Your task to perform on an android device: Open calendar and show me the fourth week of next month Image 0: 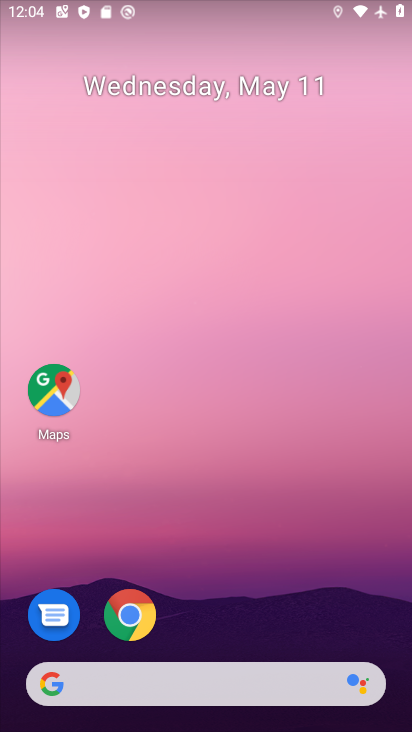
Step 0: drag from (261, 563) to (242, 5)
Your task to perform on an android device: Open calendar and show me the fourth week of next month Image 1: 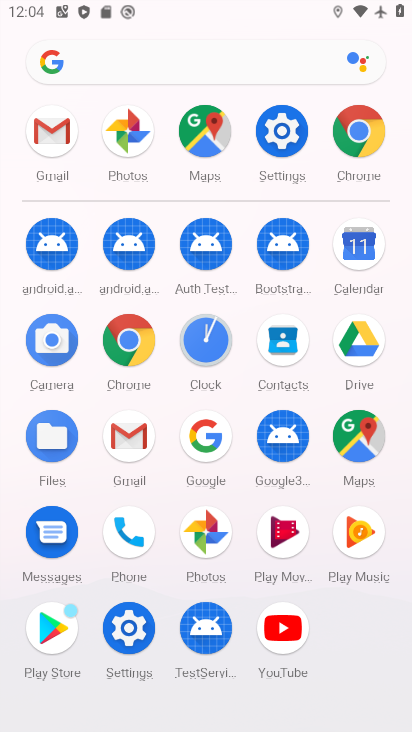
Step 1: drag from (13, 554) to (22, 291)
Your task to perform on an android device: Open calendar and show me the fourth week of next month Image 2: 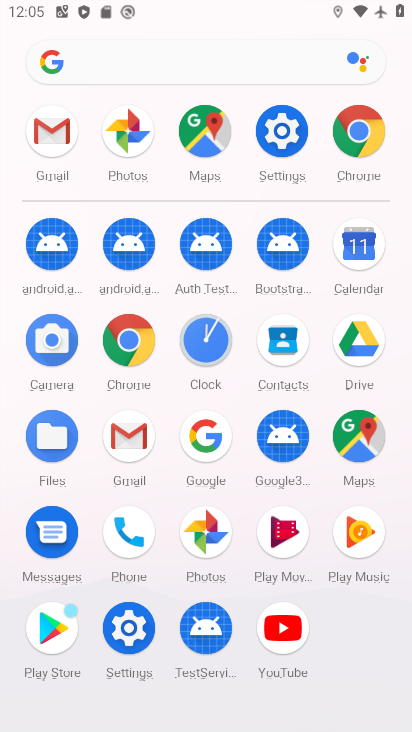
Step 2: click (358, 242)
Your task to perform on an android device: Open calendar and show me the fourth week of next month Image 3: 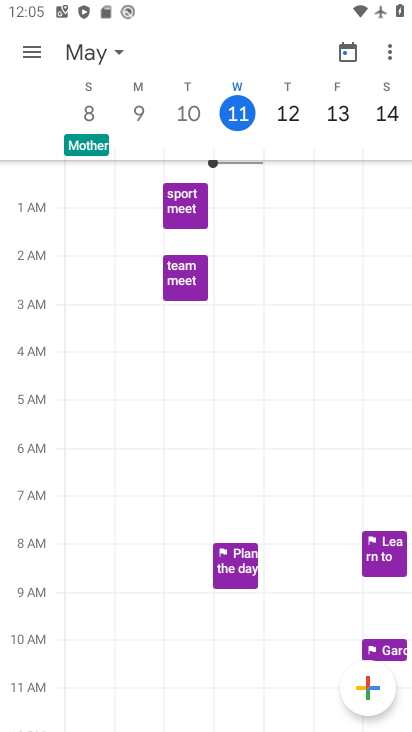
Step 3: click (32, 51)
Your task to perform on an android device: Open calendar and show me the fourth week of next month Image 4: 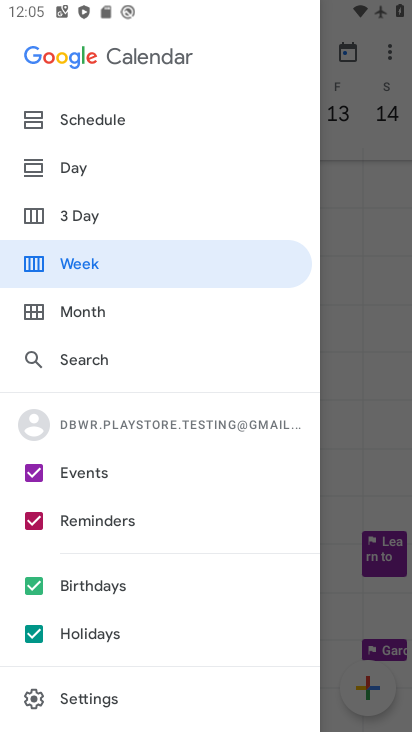
Step 4: click (345, 202)
Your task to perform on an android device: Open calendar and show me the fourth week of next month Image 5: 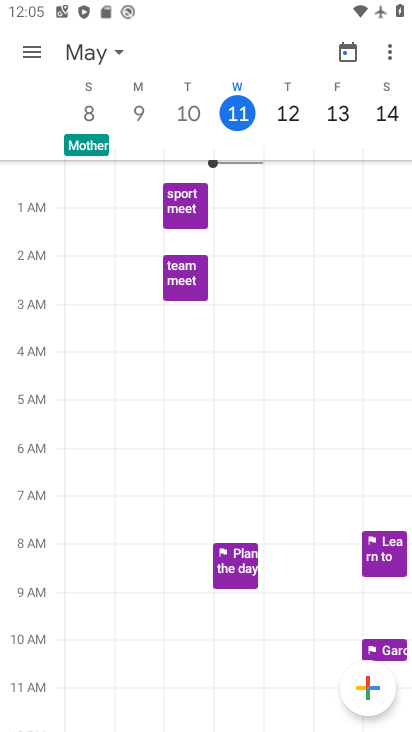
Step 5: click (111, 50)
Your task to perform on an android device: Open calendar and show me the fourth week of next month Image 6: 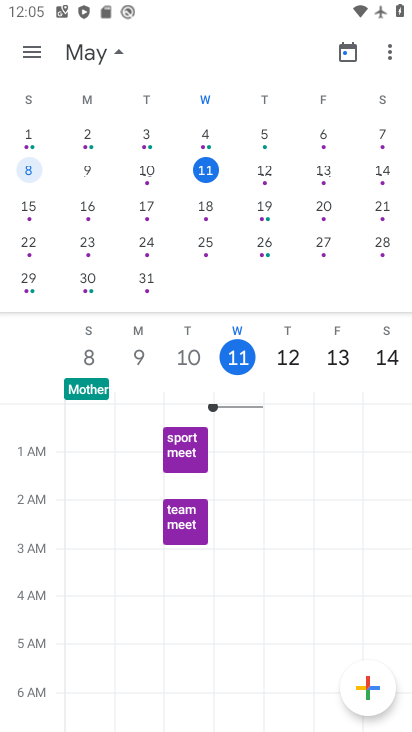
Step 6: drag from (404, 224) to (16, 238)
Your task to perform on an android device: Open calendar and show me the fourth week of next month Image 7: 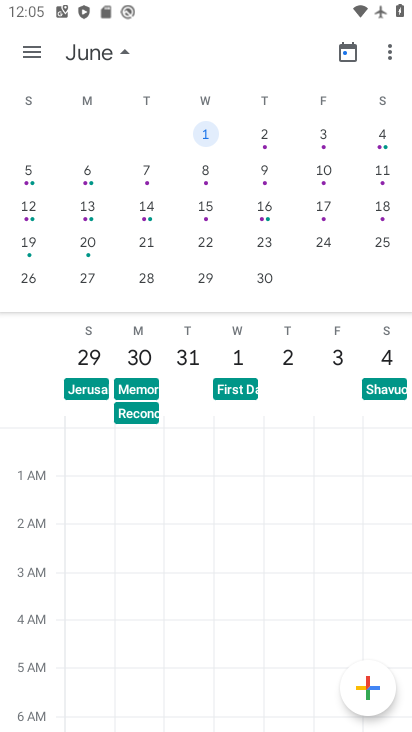
Step 7: click (29, 245)
Your task to perform on an android device: Open calendar and show me the fourth week of next month Image 8: 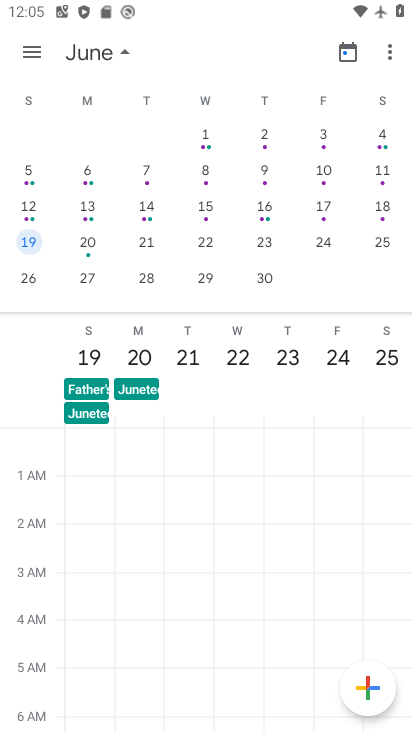
Step 8: click (29, 46)
Your task to perform on an android device: Open calendar and show me the fourth week of next month Image 9: 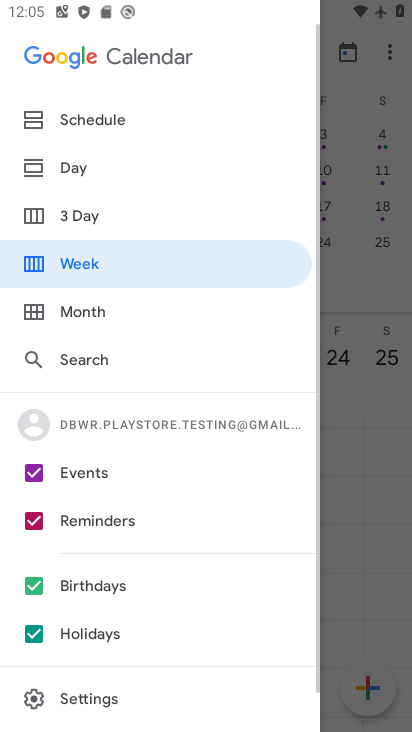
Step 9: drag from (97, 306) to (118, 222)
Your task to perform on an android device: Open calendar and show me the fourth week of next month Image 10: 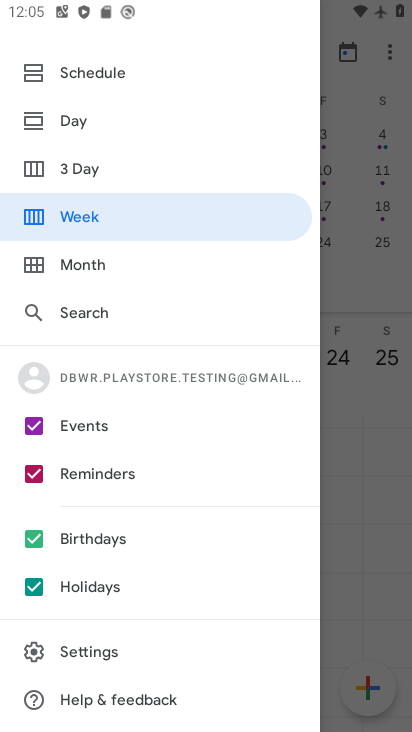
Step 10: click (122, 207)
Your task to perform on an android device: Open calendar and show me the fourth week of next month Image 11: 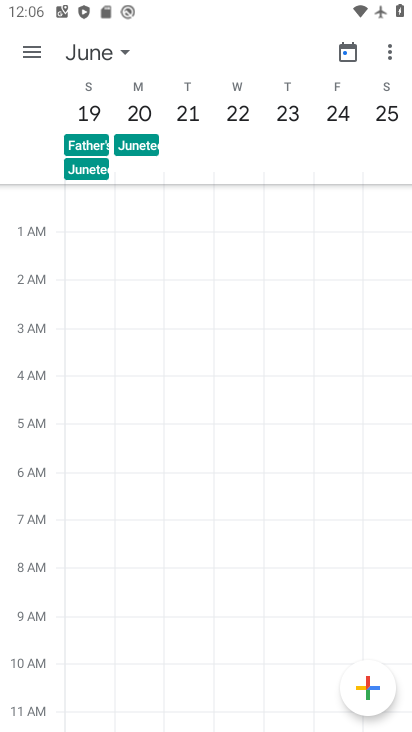
Step 11: task complete